Your task to perform on an android device: What is the recent news? Image 0: 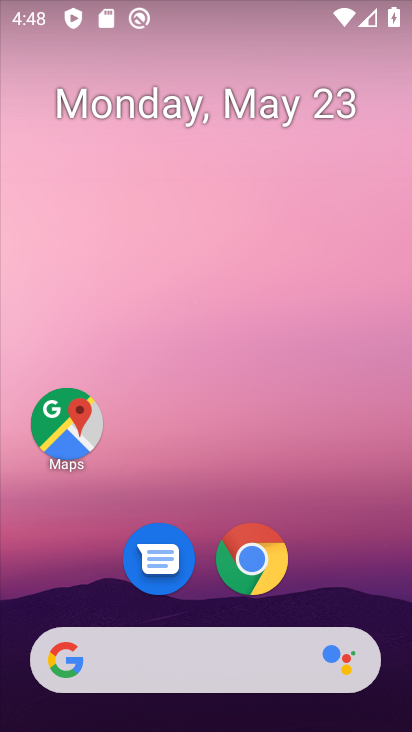
Step 0: drag from (243, 705) to (302, 13)
Your task to perform on an android device: What is the recent news? Image 1: 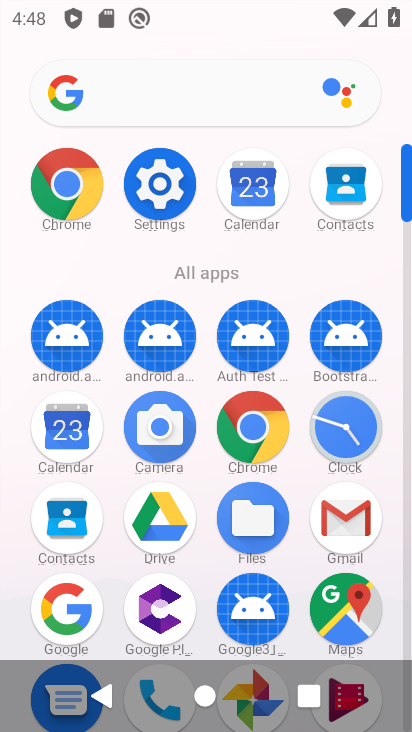
Step 1: click (246, 411)
Your task to perform on an android device: What is the recent news? Image 2: 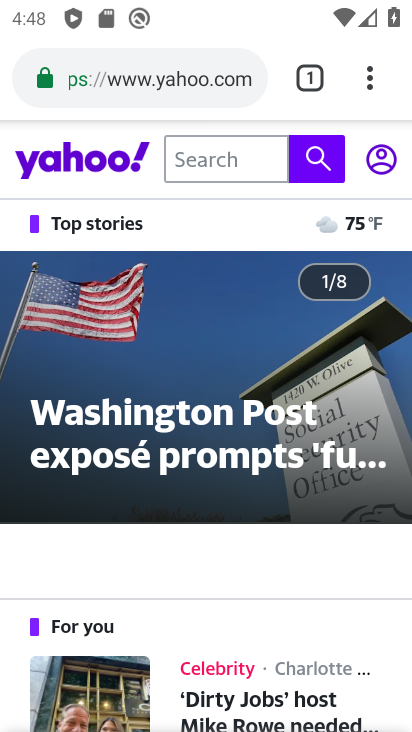
Step 2: click (208, 91)
Your task to perform on an android device: What is the recent news? Image 3: 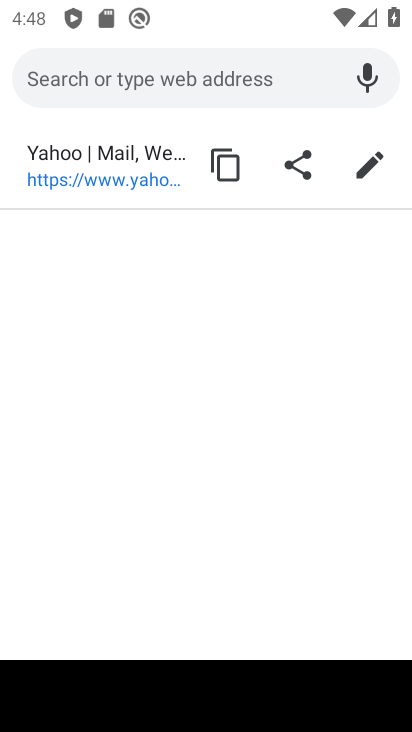
Step 3: type "recent newd"
Your task to perform on an android device: What is the recent news? Image 4: 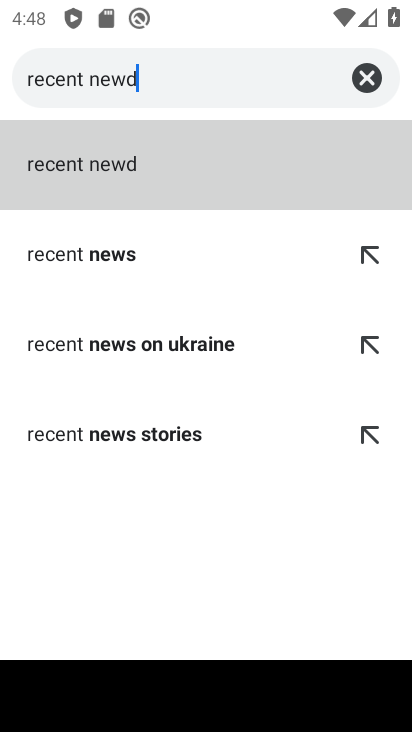
Step 4: click (165, 252)
Your task to perform on an android device: What is the recent news? Image 5: 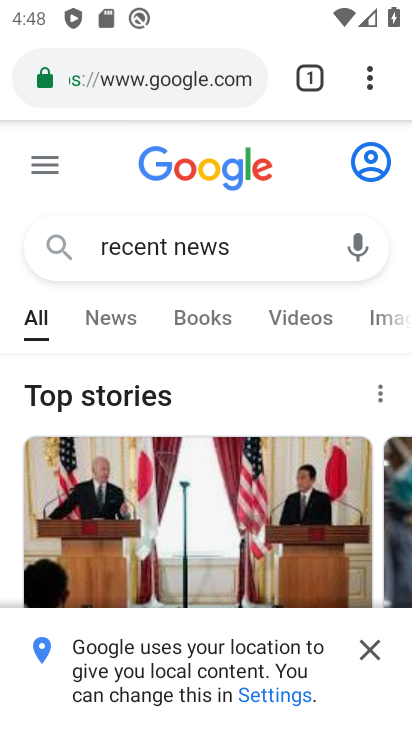
Step 5: task complete